Your task to perform on an android device: allow notifications from all sites in the chrome app Image 0: 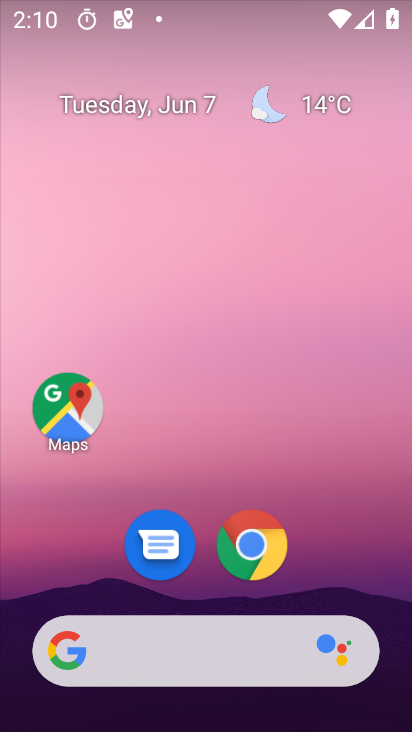
Step 0: drag from (361, 557) to (265, 1)
Your task to perform on an android device: allow notifications from all sites in the chrome app Image 1: 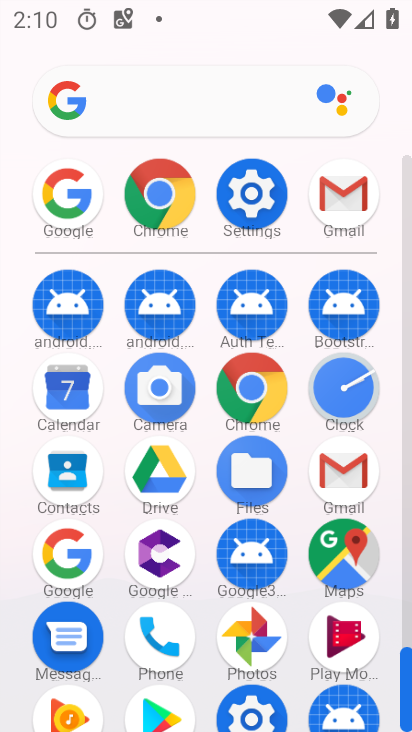
Step 1: click (267, 381)
Your task to perform on an android device: allow notifications from all sites in the chrome app Image 2: 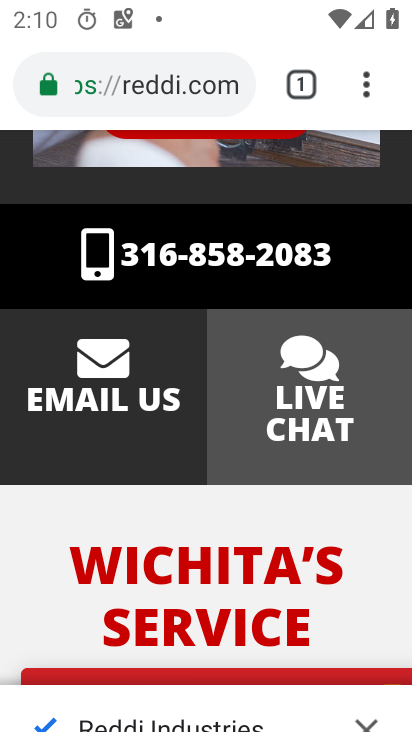
Step 2: click (384, 68)
Your task to perform on an android device: allow notifications from all sites in the chrome app Image 3: 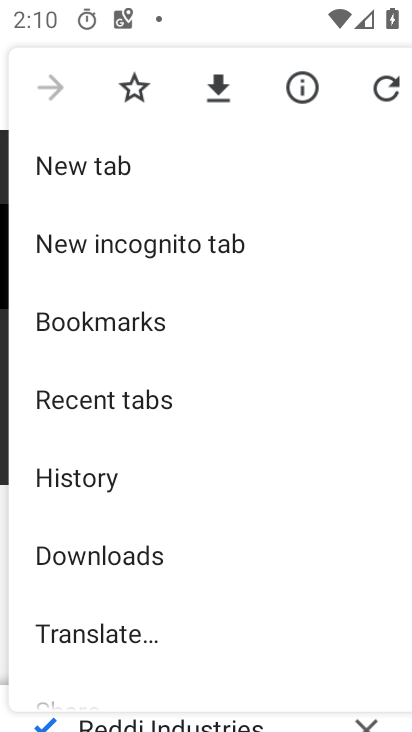
Step 3: drag from (238, 612) to (129, 54)
Your task to perform on an android device: allow notifications from all sites in the chrome app Image 4: 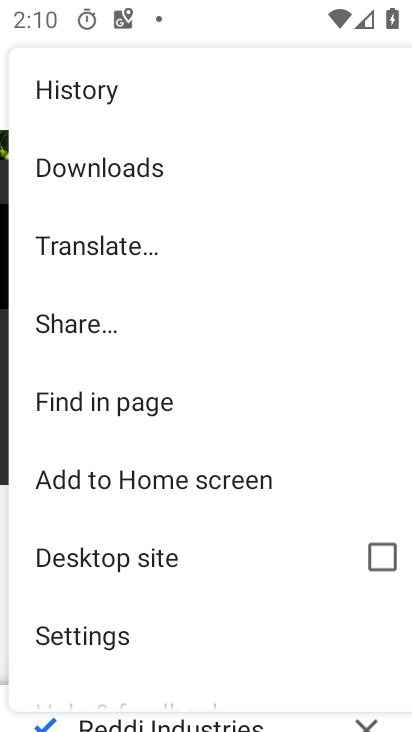
Step 4: click (184, 616)
Your task to perform on an android device: allow notifications from all sites in the chrome app Image 5: 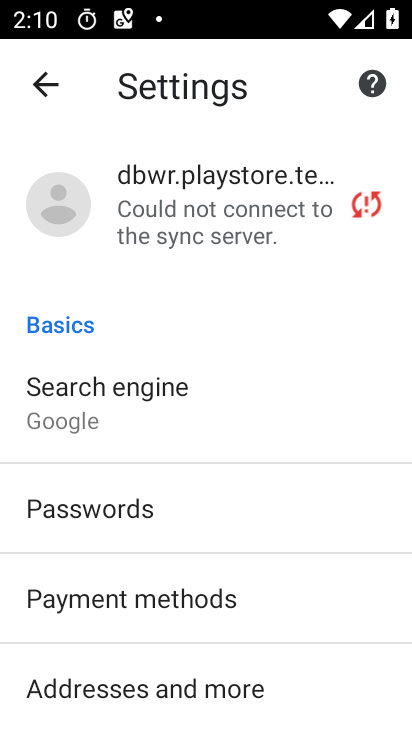
Step 5: drag from (231, 617) to (270, 103)
Your task to perform on an android device: allow notifications from all sites in the chrome app Image 6: 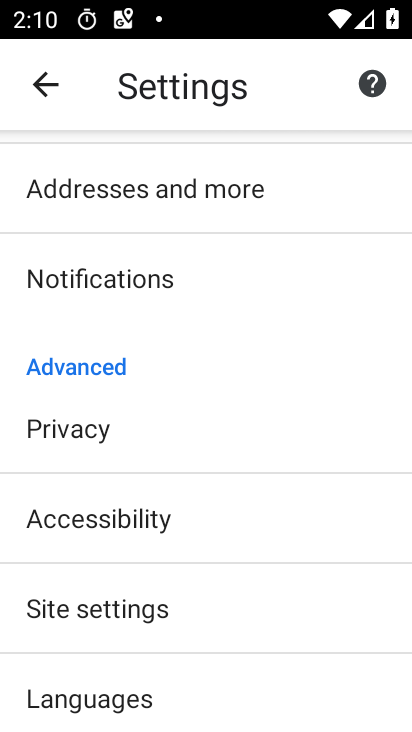
Step 6: click (258, 599)
Your task to perform on an android device: allow notifications from all sites in the chrome app Image 7: 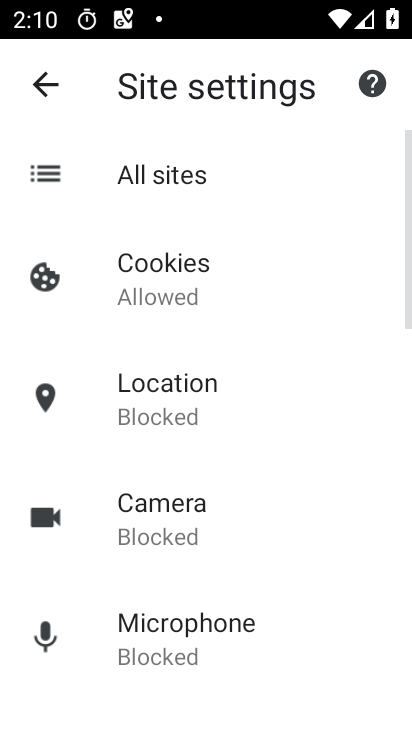
Step 7: click (230, 181)
Your task to perform on an android device: allow notifications from all sites in the chrome app Image 8: 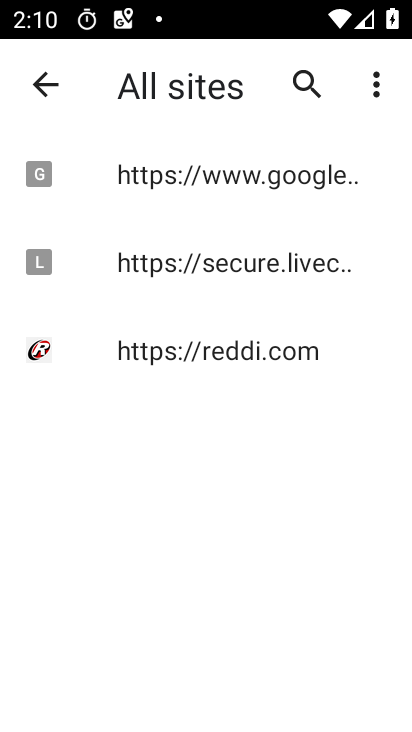
Step 8: click (224, 176)
Your task to perform on an android device: allow notifications from all sites in the chrome app Image 9: 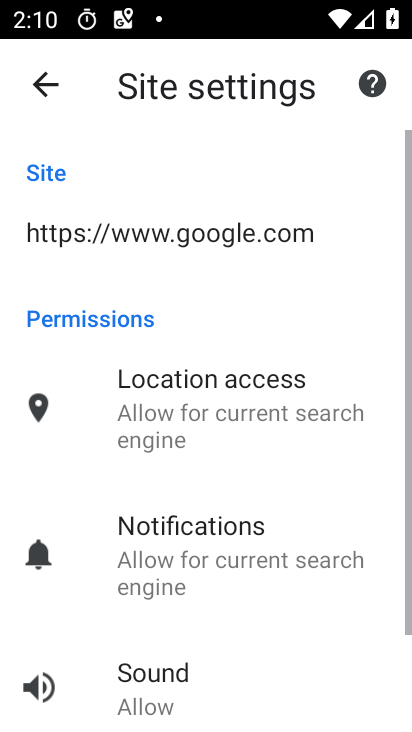
Step 9: click (225, 531)
Your task to perform on an android device: allow notifications from all sites in the chrome app Image 10: 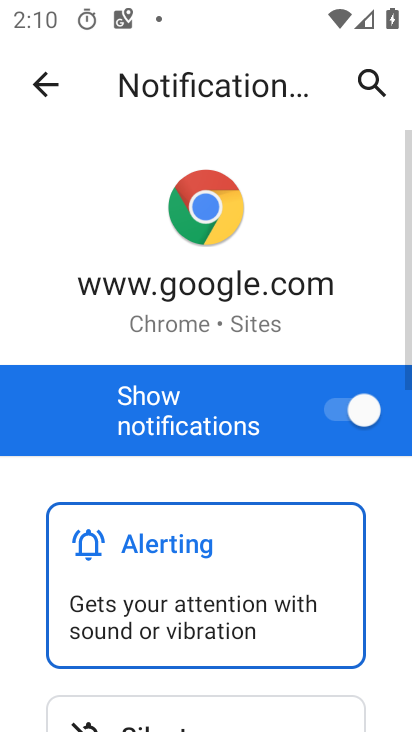
Step 10: task complete